Your task to perform on an android device: Open settings Image 0: 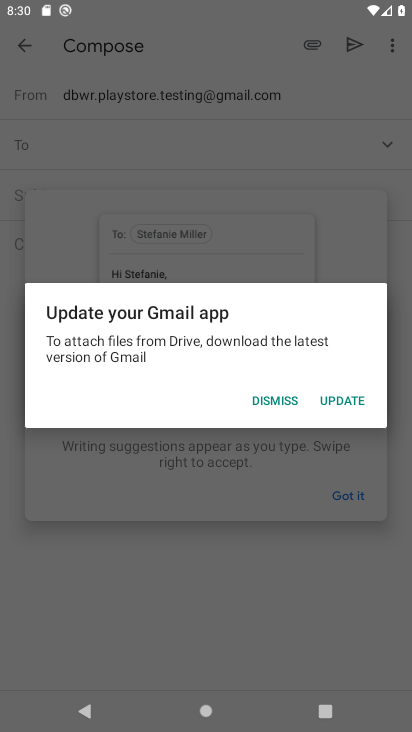
Step 0: press home button
Your task to perform on an android device: Open settings Image 1: 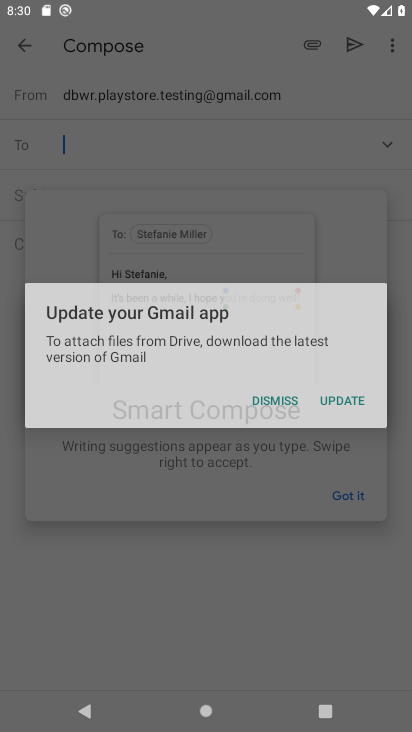
Step 1: press home button
Your task to perform on an android device: Open settings Image 2: 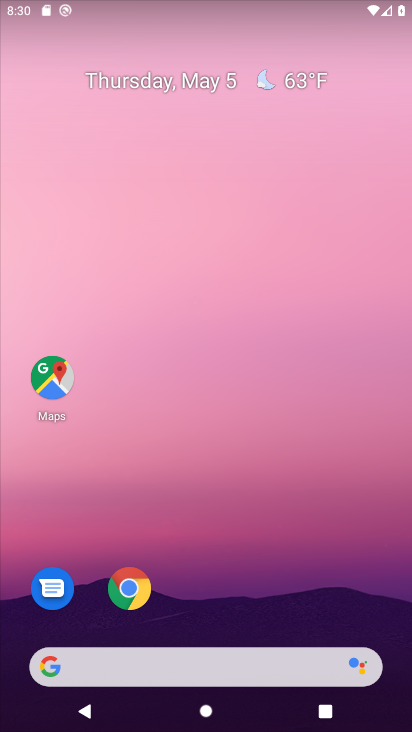
Step 2: drag from (213, 629) to (213, 41)
Your task to perform on an android device: Open settings Image 3: 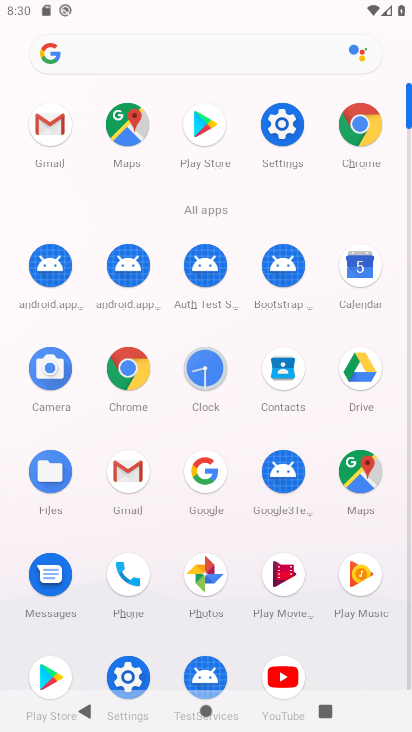
Step 3: click (284, 121)
Your task to perform on an android device: Open settings Image 4: 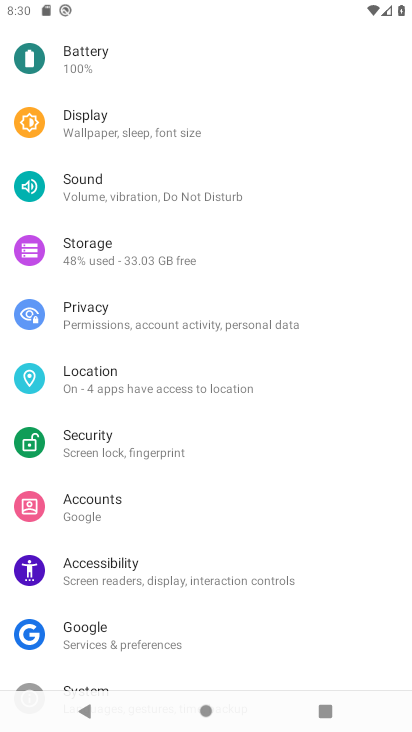
Step 4: task complete